Your task to perform on an android device: Open Google Maps Image 0: 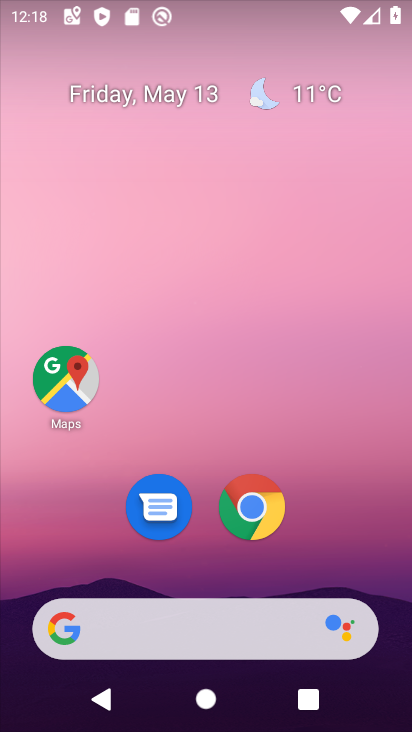
Step 0: click (42, 386)
Your task to perform on an android device: Open Google Maps Image 1: 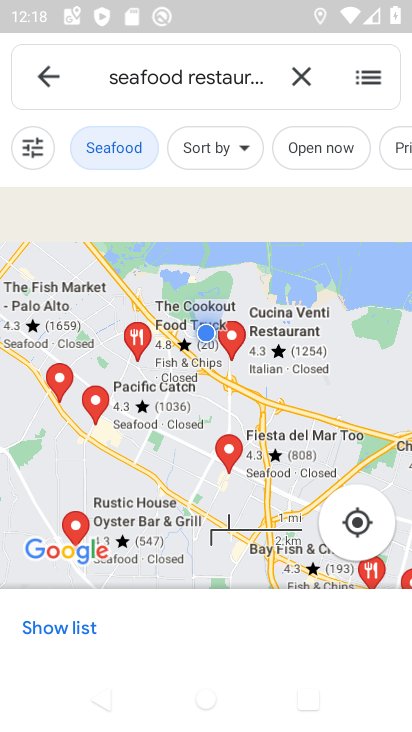
Step 1: task complete